Your task to perform on an android device: Toggle the flashlight Image 0: 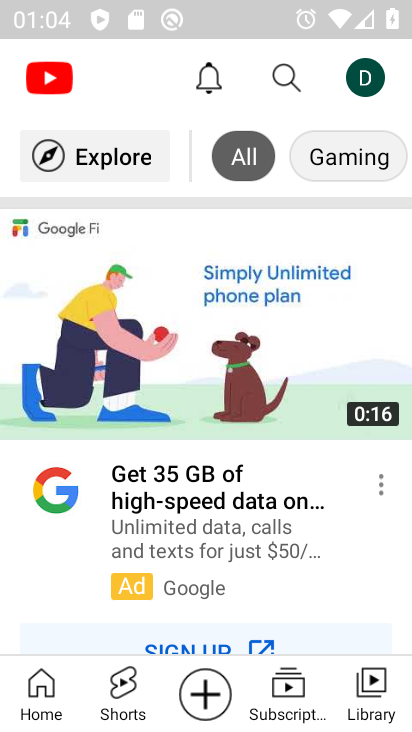
Step 0: press home button
Your task to perform on an android device: Toggle the flashlight Image 1: 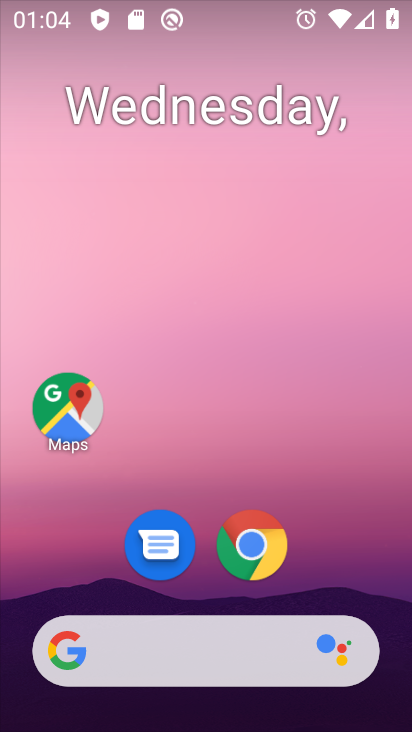
Step 1: drag from (306, 505) to (357, 116)
Your task to perform on an android device: Toggle the flashlight Image 2: 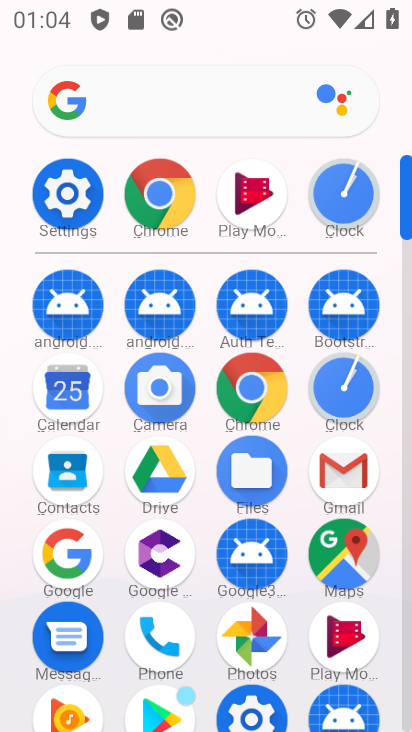
Step 2: click (62, 198)
Your task to perform on an android device: Toggle the flashlight Image 3: 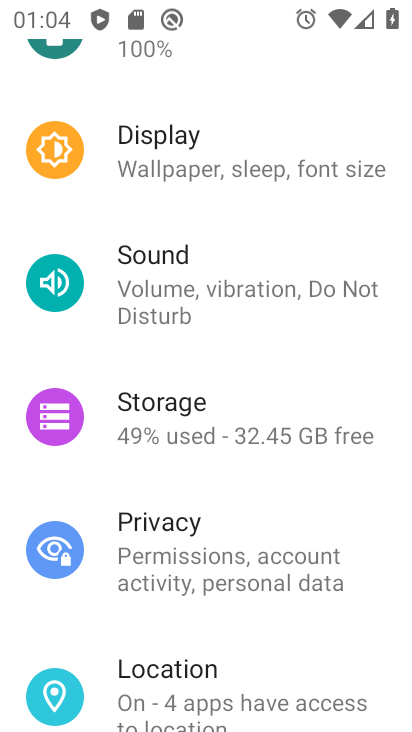
Step 3: click (211, 143)
Your task to perform on an android device: Toggle the flashlight Image 4: 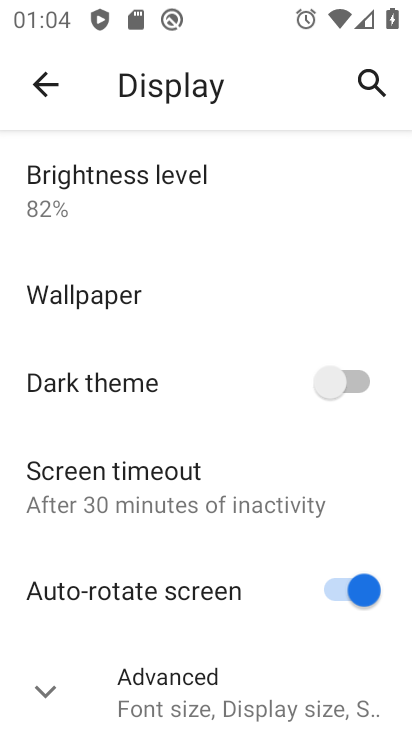
Step 4: task complete